Your task to perform on an android device: toggle notifications settings in the gmail app Image 0: 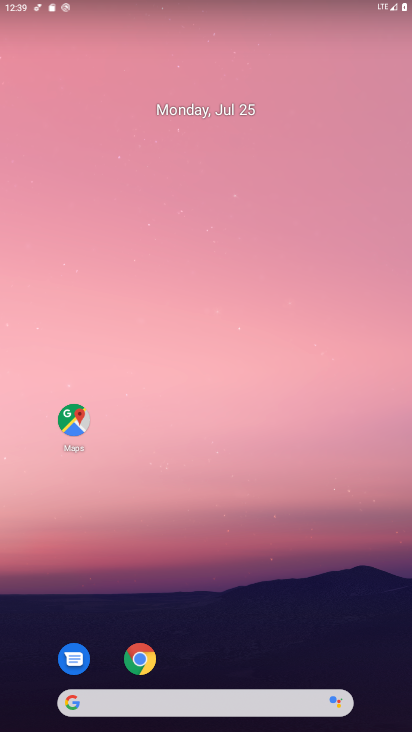
Step 0: click (70, 414)
Your task to perform on an android device: toggle notifications settings in the gmail app Image 1: 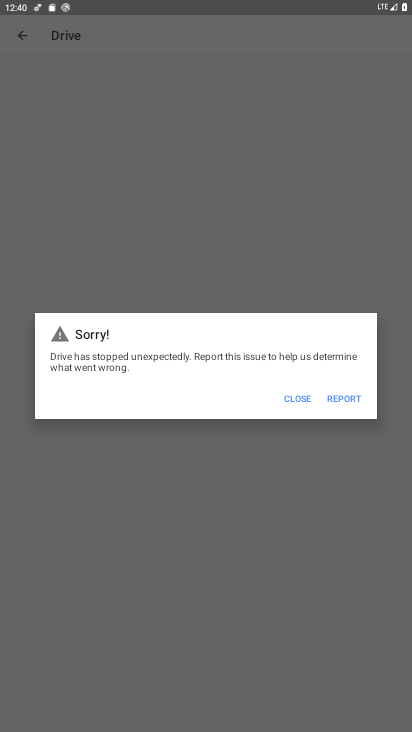
Step 1: press home button
Your task to perform on an android device: toggle notifications settings in the gmail app Image 2: 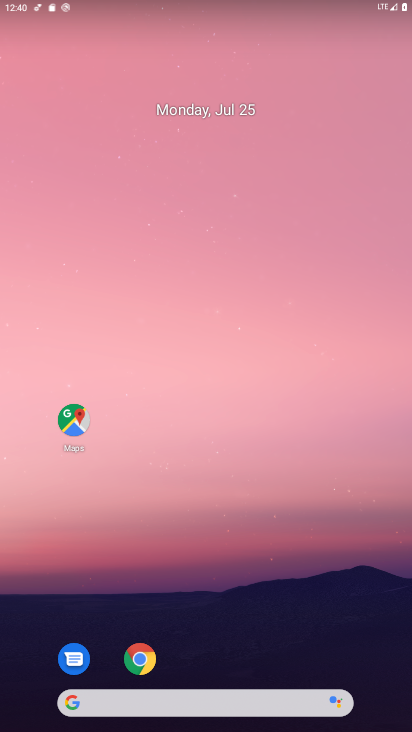
Step 2: drag from (216, 672) to (235, 38)
Your task to perform on an android device: toggle notifications settings in the gmail app Image 3: 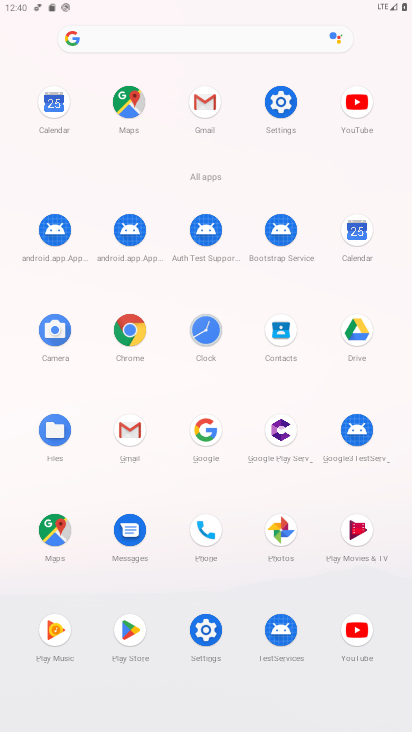
Step 3: click (203, 94)
Your task to perform on an android device: toggle notifications settings in the gmail app Image 4: 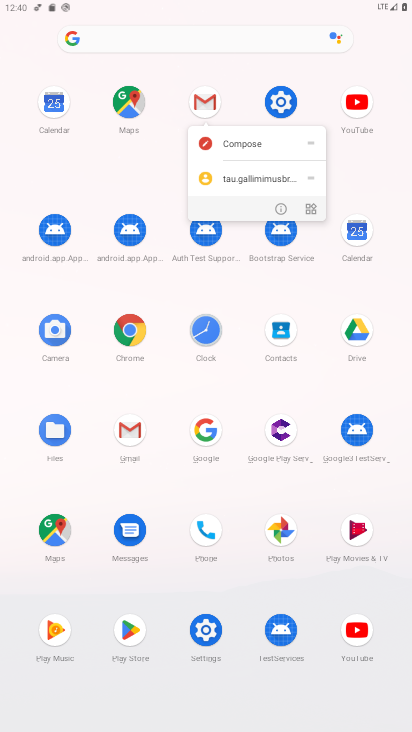
Step 4: click (203, 97)
Your task to perform on an android device: toggle notifications settings in the gmail app Image 5: 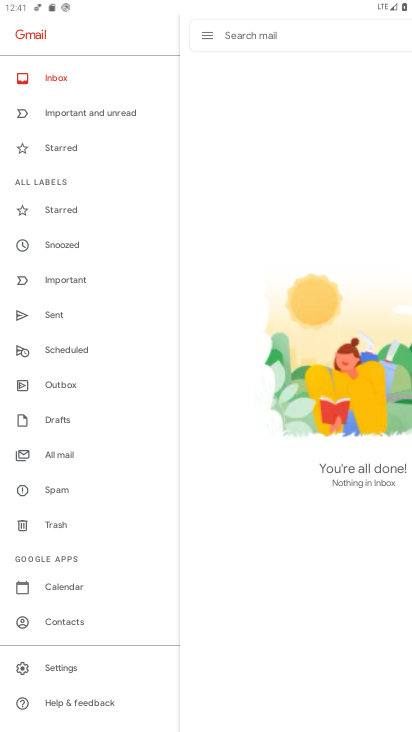
Step 5: click (83, 664)
Your task to perform on an android device: toggle notifications settings in the gmail app Image 6: 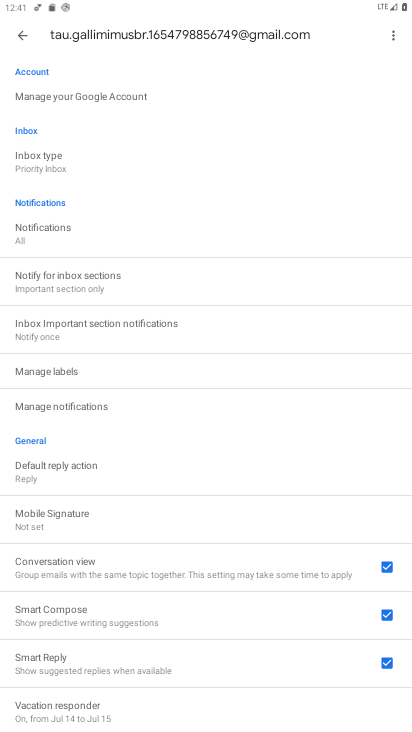
Step 6: click (21, 33)
Your task to perform on an android device: toggle notifications settings in the gmail app Image 7: 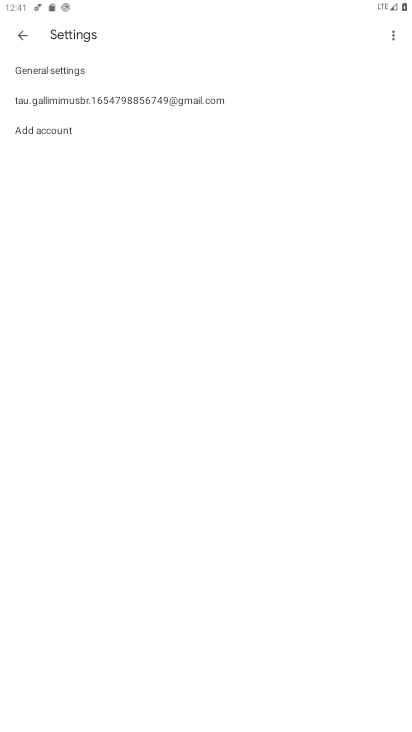
Step 7: click (87, 65)
Your task to perform on an android device: toggle notifications settings in the gmail app Image 8: 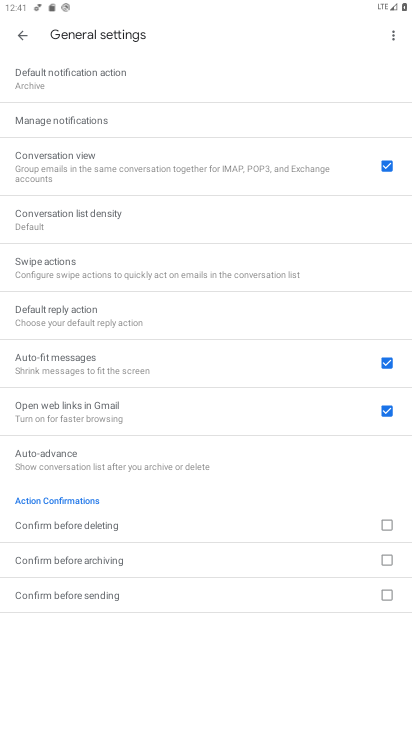
Step 8: click (125, 119)
Your task to perform on an android device: toggle notifications settings in the gmail app Image 9: 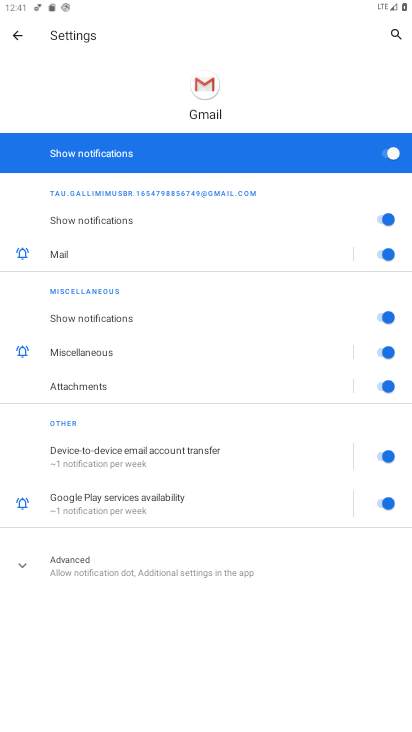
Step 9: click (392, 156)
Your task to perform on an android device: toggle notifications settings in the gmail app Image 10: 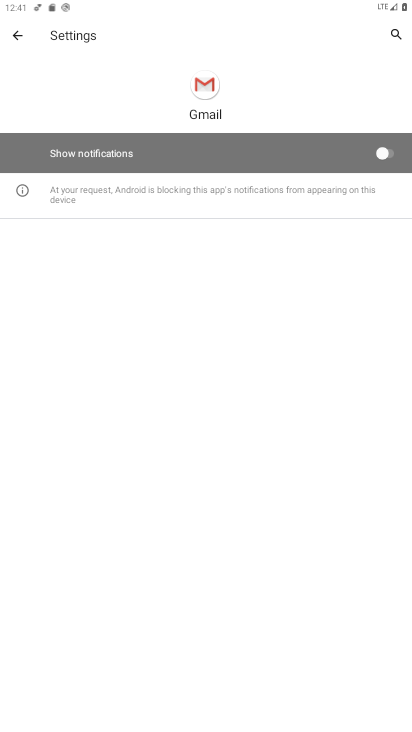
Step 10: task complete